Your task to perform on an android device: Open accessibility settings Image 0: 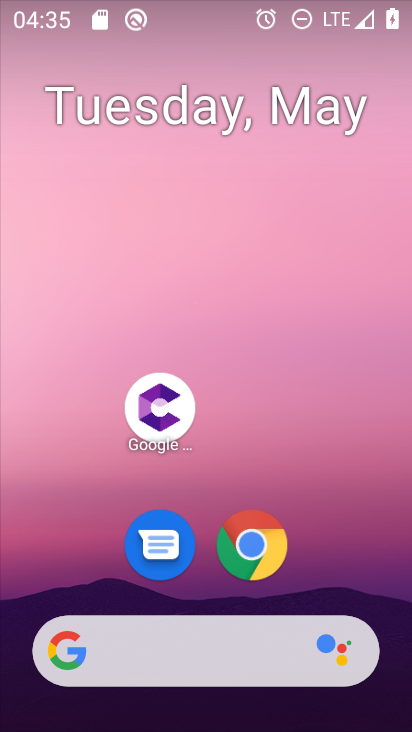
Step 0: drag from (369, 584) to (351, 233)
Your task to perform on an android device: Open accessibility settings Image 1: 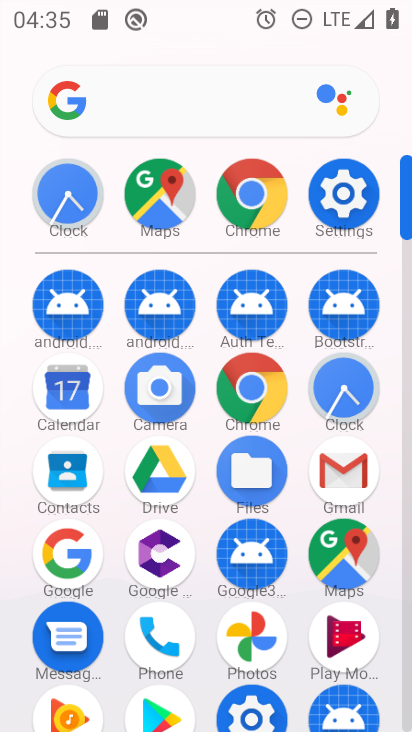
Step 1: click (361, 206)
Your task to perform on an android device: Open accessibility settings Image 2: 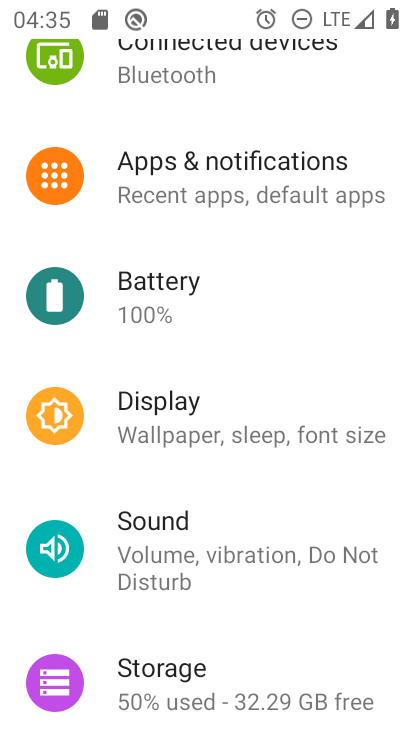
Step 2: drag from (363, 278) to (355, 410)
Your task to perform on an android device: Open accessibility settings Image 3: 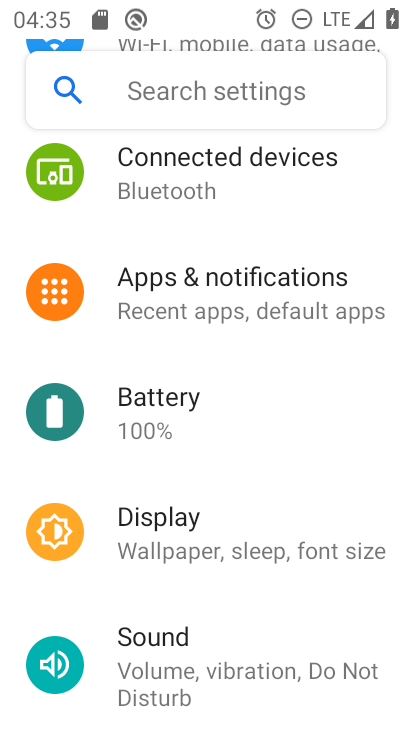
Step 3: drag from (361, 176) to (361, 374)
Your task to perform on an android device: Open accessibility settings Image 4: 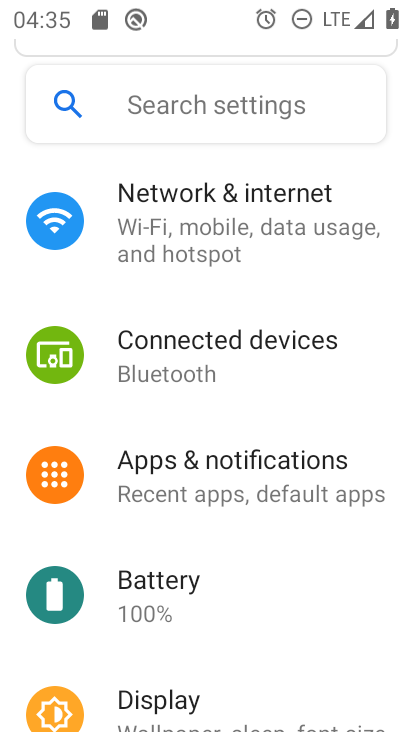
Step 4: drag from (372, 183) to (367, 394)
Your task to perform on an android device: Open accessibility settings Image 5: 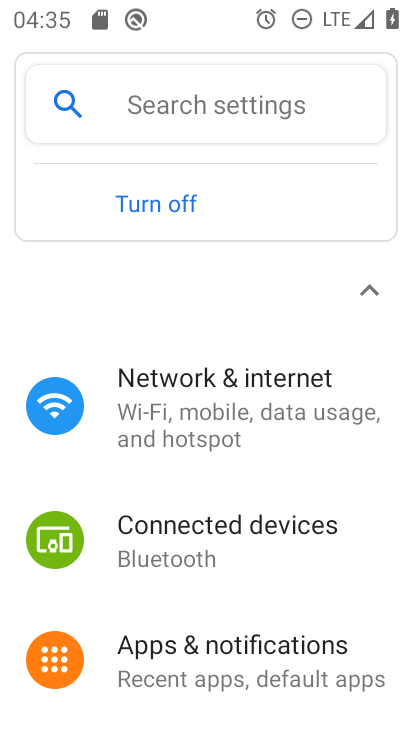
Step 5: drag from (371, 485) to (371, 347)
Your task to perform on an android device: Open accessibility settings Image 6: 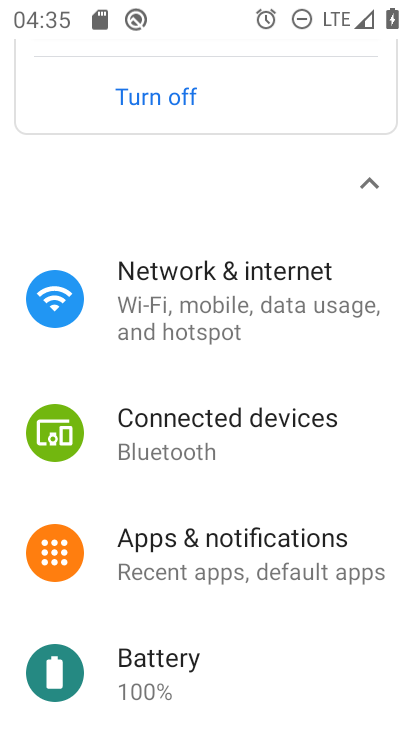
Step 6: drag from (369, 496) to (371, 365)
Your task to perform on an android device: Open accessibility settings Image 7: 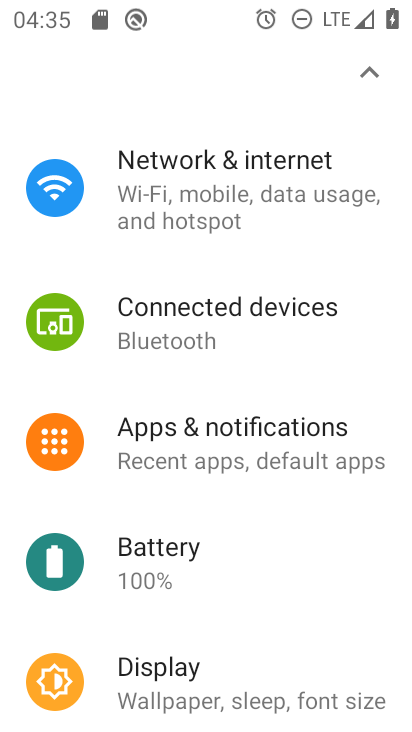
Step 7: drag from (349, 578) to (366, 364)
Your task to perform on an android device: Open accessibility settings Image 8: 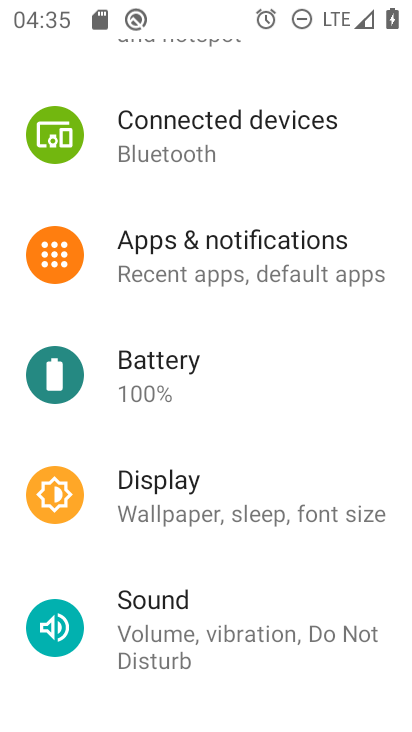
Step 8: drag from (335, 546) to (351, 345)
Your task to perform on an android device: Open accessibility settings Image 9: 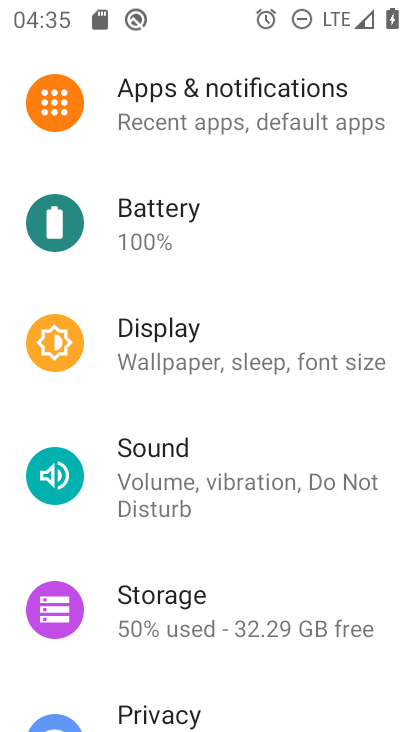
Step 9: drag from (335, 554) to (331, 408)
Your task to perform on an android device: Open accessibility settings Image 10: 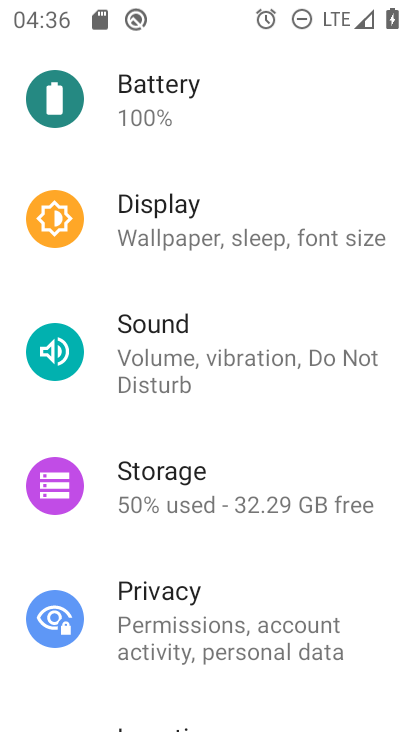
Step 10: drag from (350, 569) to (328, 425)
Your task to perform on an android device: Open accessibility settings Image 11: 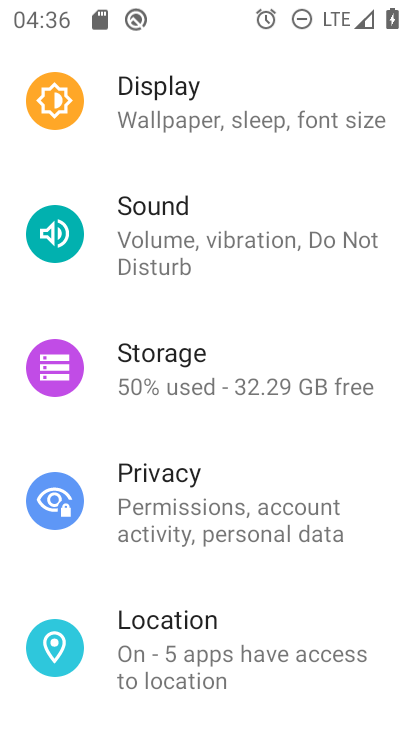
Step 11: drag from (337, 597) to (340, 463)
Your task to perform on an android device: Open accessibility settings Image 12: 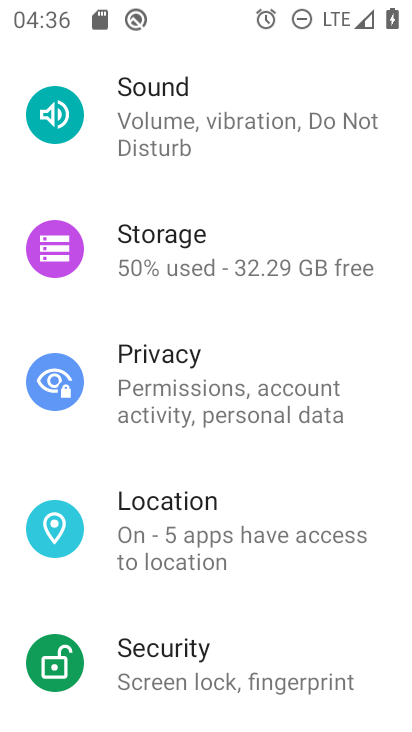
Step 12: drag from (346, 616) to (347, 480)
Your task to perform on an android device: Open accessibility settings Image 13: 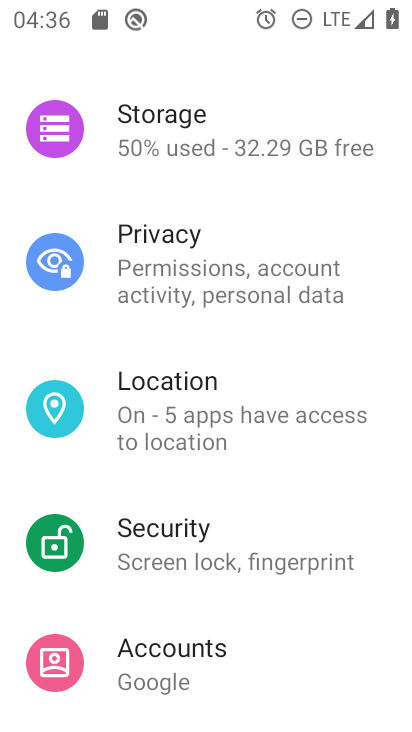
Step 13: drag from (375, 625) to (356, 499)
Your task to perform on an android device: Open accessibility settings Image 14: 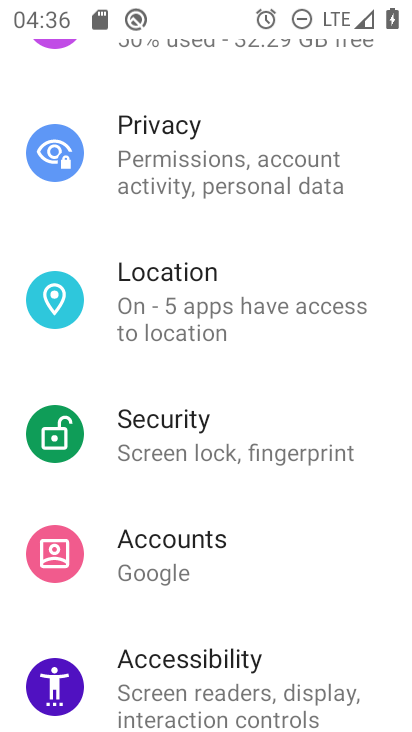
Step 14: drag from (354, 658) to (359, 544)
Your task to perform on an android device: Open accessibility settings Image 15: 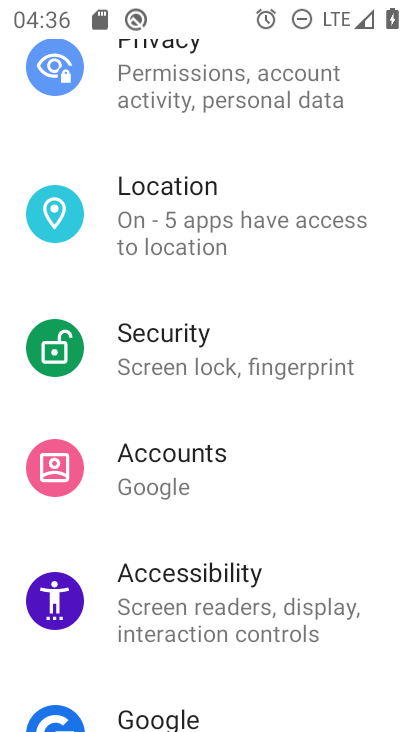
Step 15: drag from (371, 672) to (370, 535)
Your task to perform on an android device: Open accessibility settings Image 16: 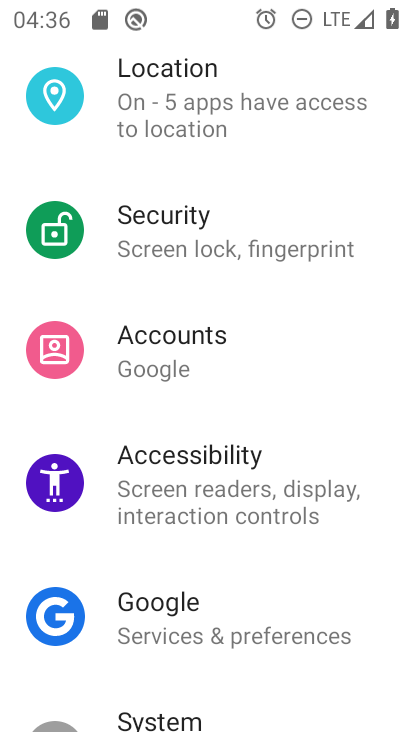
Step 16: click (309, 500)
Your task to perform on an android device: Open accessibility settings Image 17: 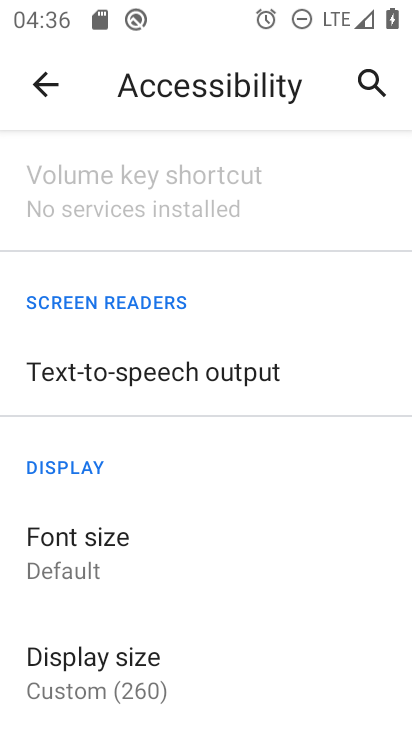
Step 17: task complete